Your task to perform on an android device: What's the weather today? Image 0: 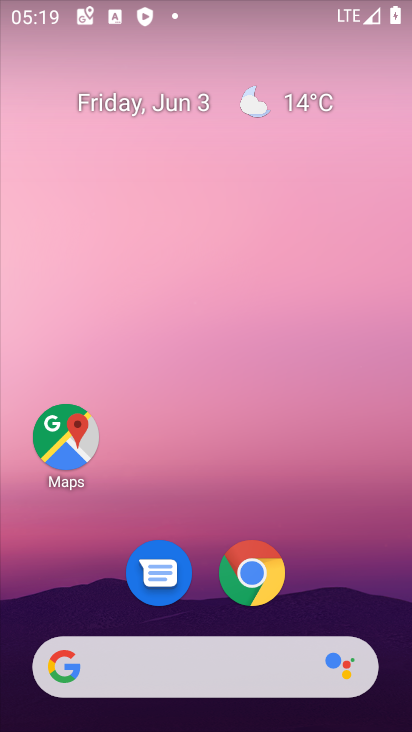
Step 0: drag from (336, 601) to (264, 211)
Your task to perform on an android device: What's the weather today? Image 1: 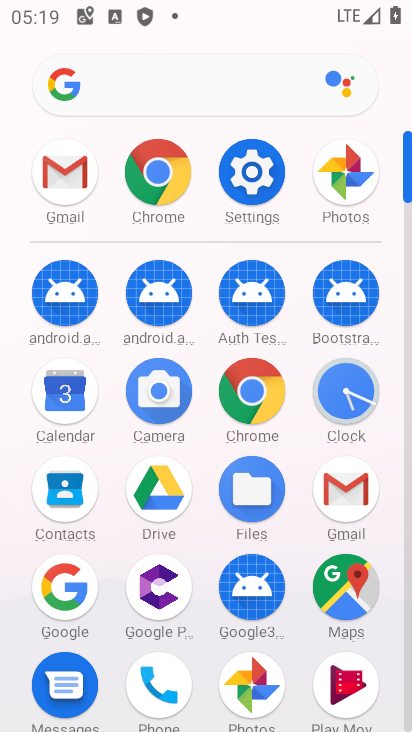
Step 1: click (162, 173)
Your task to perform on an android device: What's the weather today? Image 2: 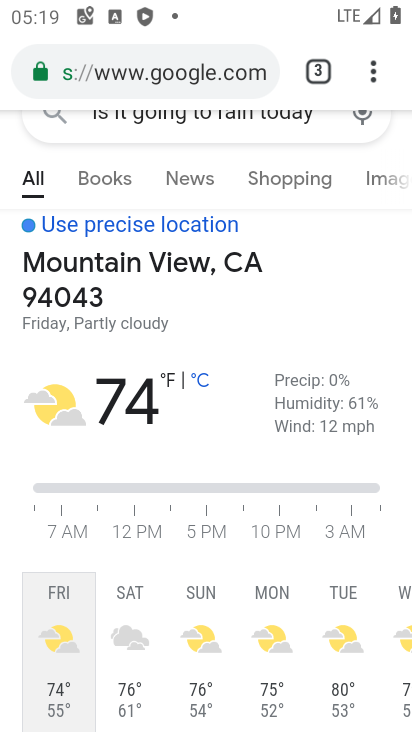
Step 2: click (241, 81)
Your task to perform on an android device: What's the weather today? Image 3: 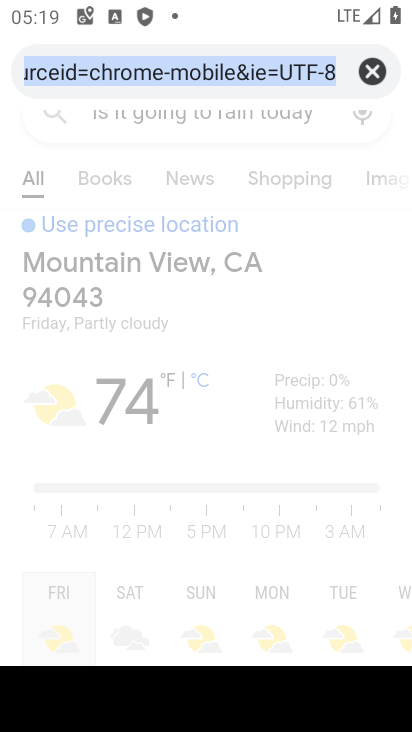
Step 3: click (377, 69)
Your task to perform on an android device: What's the weather today? Image 4: 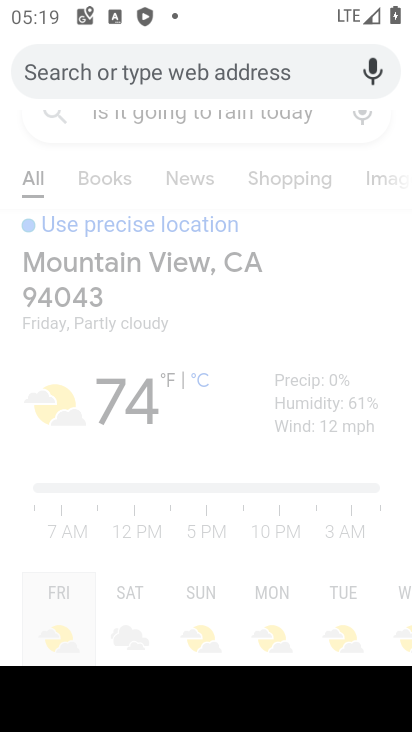
Step 4: type "whats the weather today"
Your task to perform on an android device: What's the weather today? Image 5: 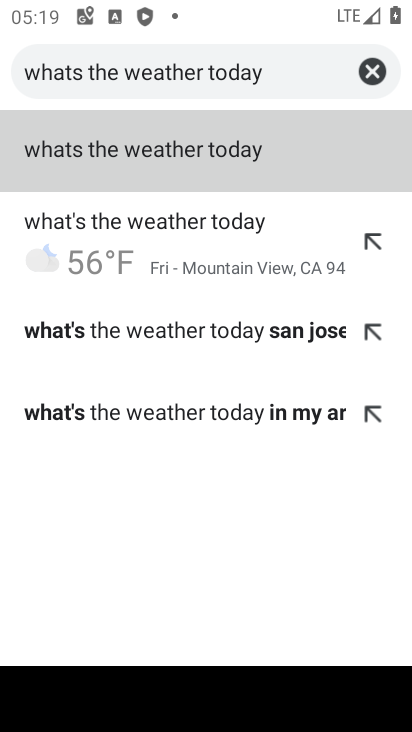
Step 5: click (267, 144)
Your task to perform on an android device: What's the weather today? Image 6: 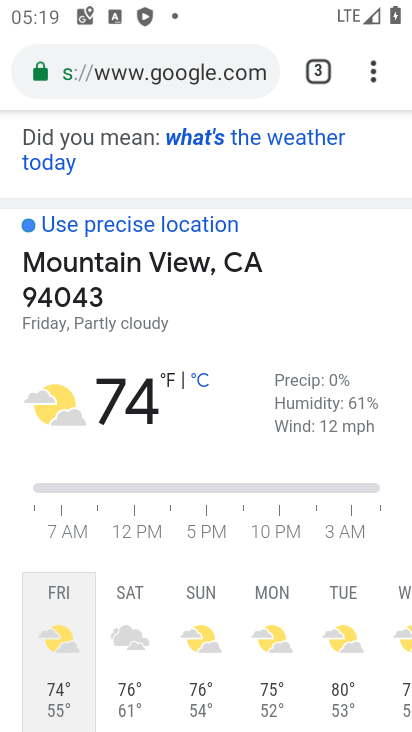
Step 6: click (256, 136)
Your task to perform on an android device: What's the weather today? Image 7: 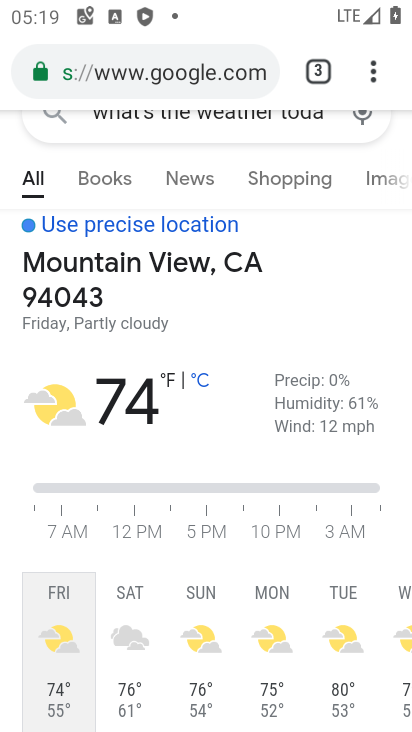
Step 7: task complete